Your task to perform on an android device: Open the map Image 0: 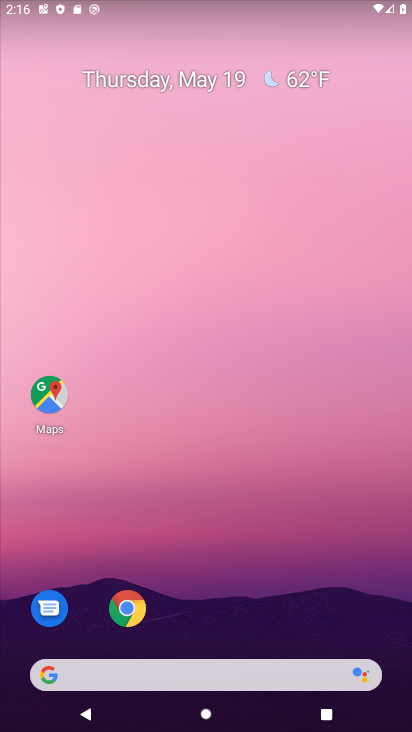
Step 0: click (35, 387)
Your task to perform on an android device: Open the map Image 1: 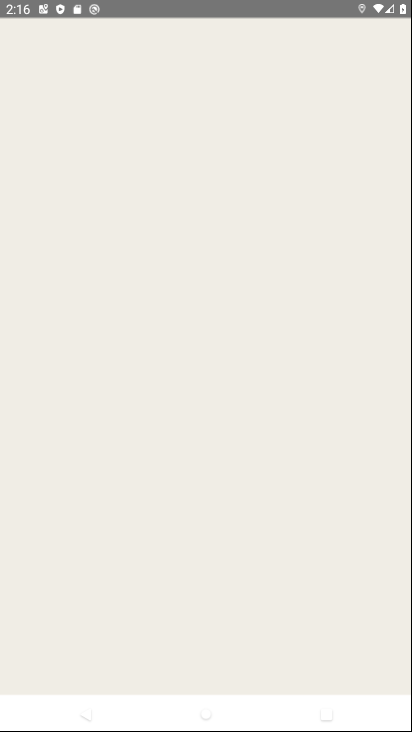
Step 1: task complete